Your task to perform on an android device: What's on my calendar tomorrow? Image 0: 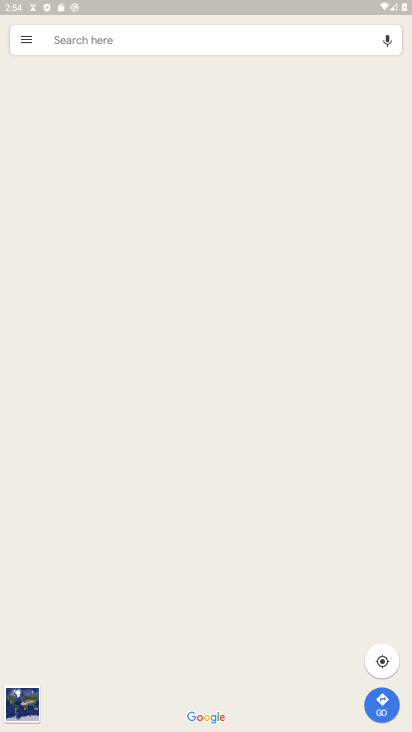
Step 0: drag from (243, 612) to (241, 250)
Your task to perform on an android device: What's on my calendar tomorrow? Image 1: 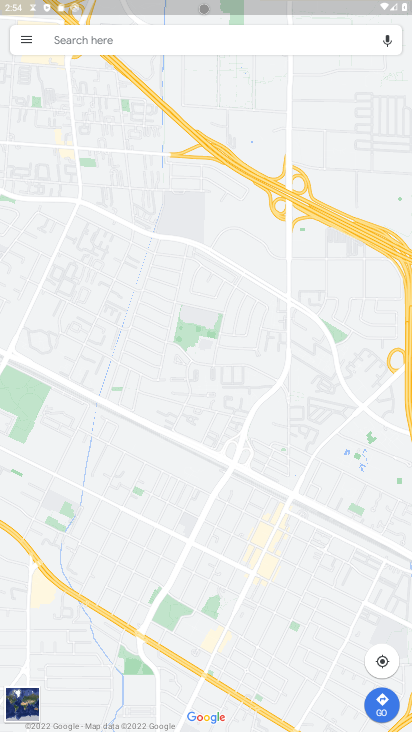
Step 1: press back button
Your task to perform on an android device: What's on my calendar tomorrow? Image 2: 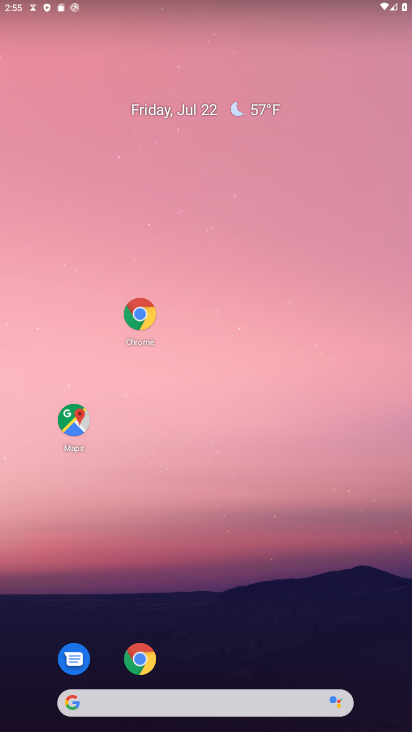
Step 2: drag from (215, 614) to (213, 119)
Your task to perform on an android device: What's on my calendar tomorrow? Image 3: 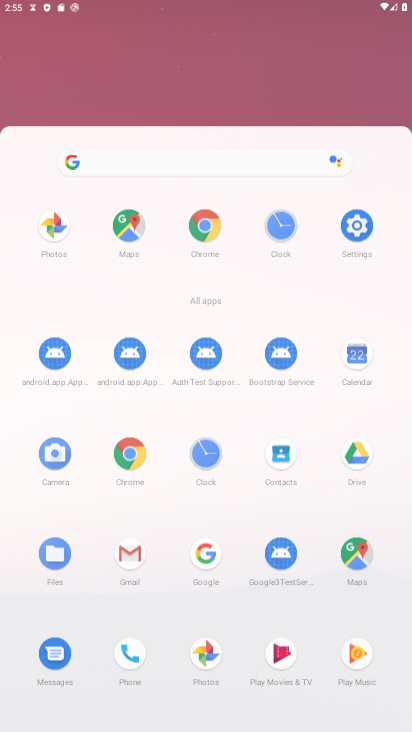
Step 3: drag from (246, 560) to (191, 33)
Your task to perform on an android device: What's on my calendar tomorrow? Image 4: 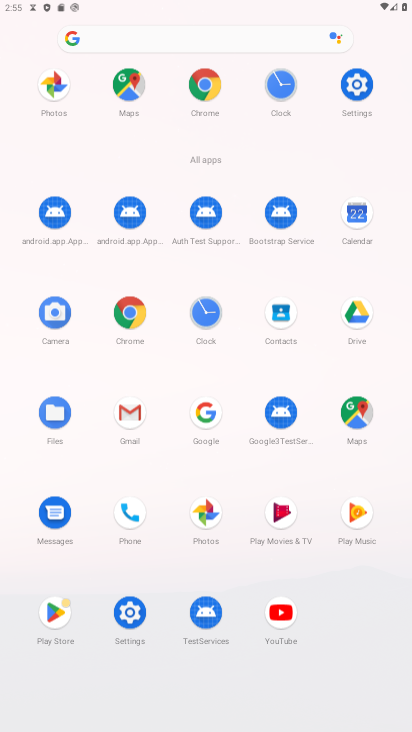
Step 4: drag from (250, 399) to (213, 38)
Your task to perform on an android device: What's on my calendar tomorrow? Image 5: 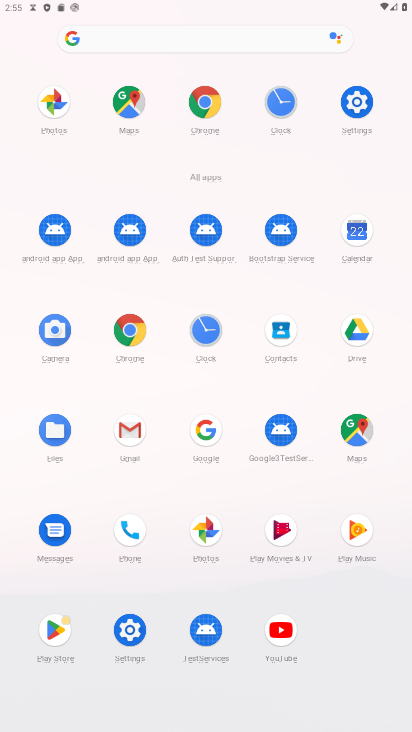
Step 5: click (354, 225)
Your task to perform on an android device: What's on my calendar tomorrow? Image 6: 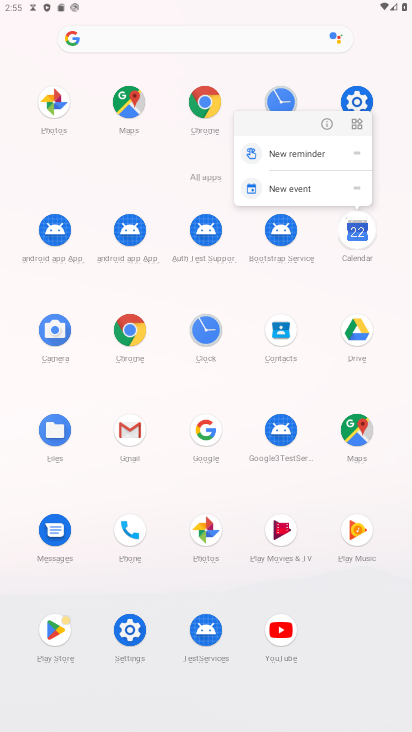
Step 6: click (366, 219)
Your task to perform on an android device: What's on my calendar tomorrow? Image 7: 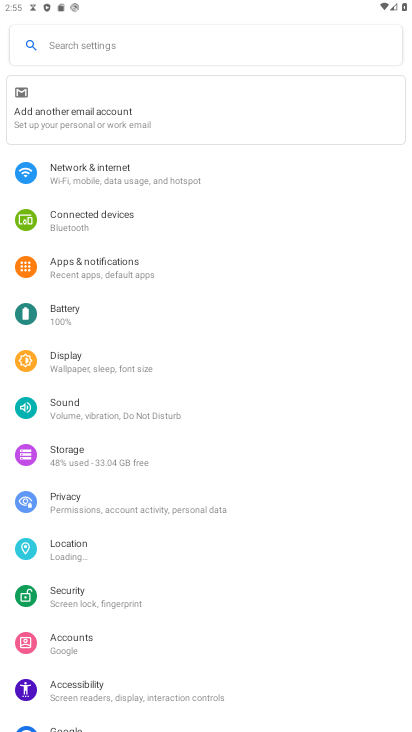
Step 7: drag from (69, 323) to (48, 105)
Your task to perform on an android device: What's on my calendar tomorrow? Image 8: 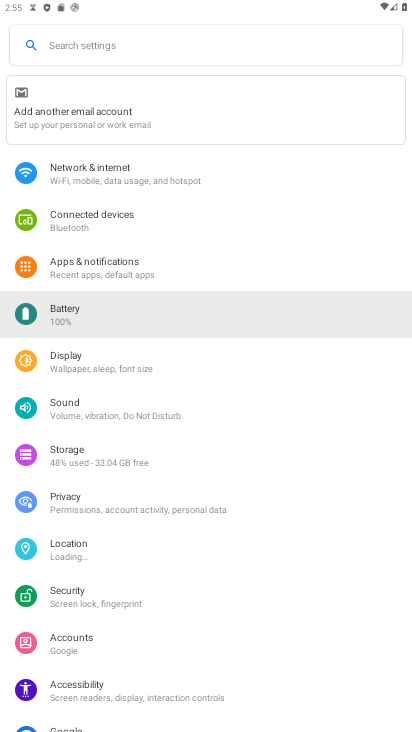
Step 8: drag from (92, 339) to (30, 120)
Your task to perform on an android device: What's on my calendar tomorrow? Image 9: 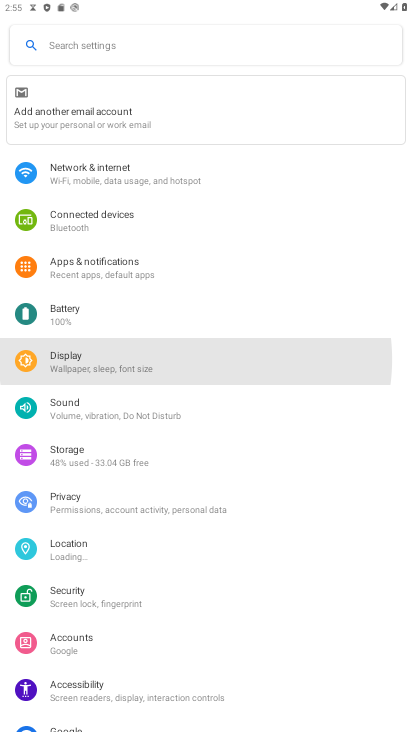
Step 9: drag from (71, 415) to (80, 243)
Your task to perform on an android device: What's on my calendar tomorrow? Image 10: 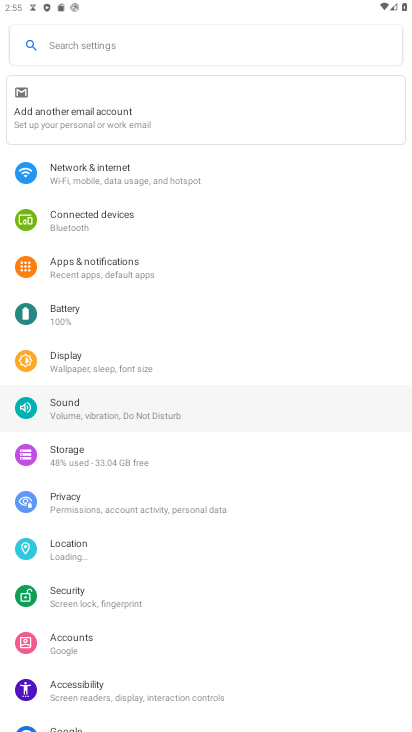
Step 10: drag from (141, 511) to (105, 142)
Your task to perform on an android device: What's on my calendar tomorrow? Image 11: 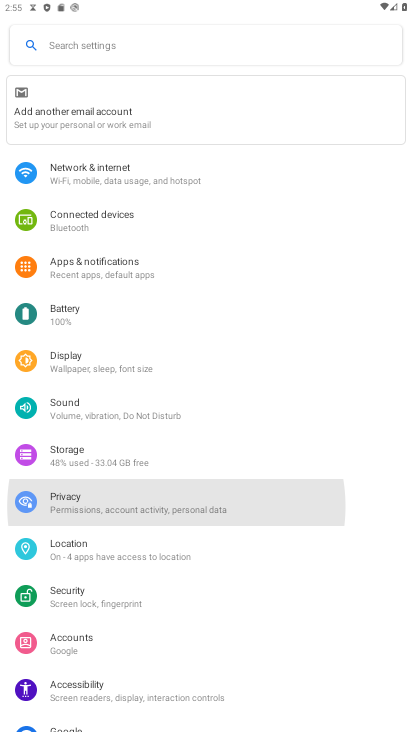
Step 11: drag from (164, 508) to (135, 243)
Your task to perform on an android device: What's on my calendar tomorrow? Image 12: 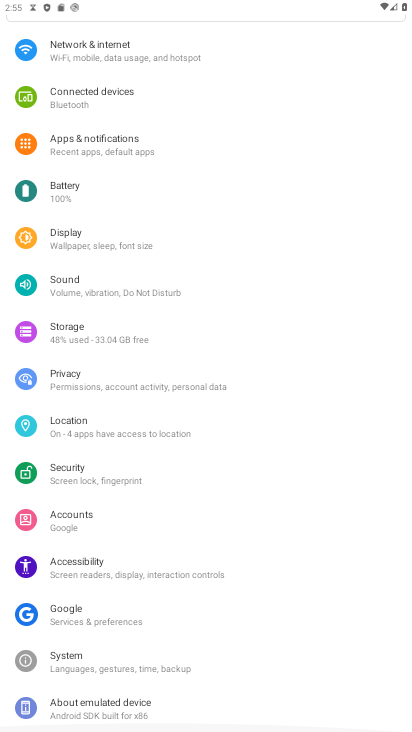
Step 12: drag from (108, 437) to (36, 78)
Your task to perform on an android device: What's on my calendar tomorrow? Image 13: 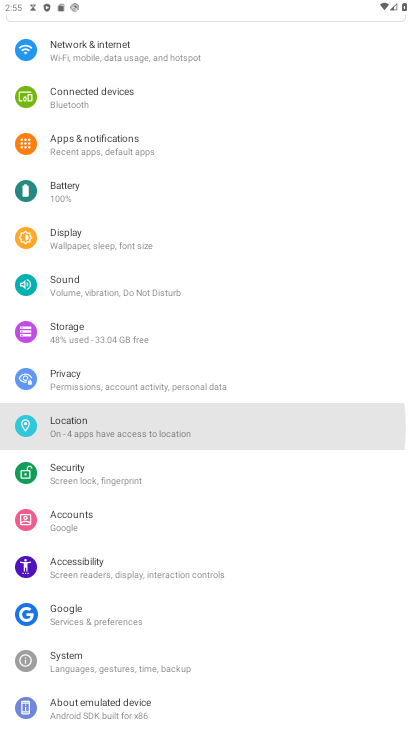
Step 13: drag from (90, 533) to (73, 246)
Your task to perform on an android device: What's on my calendar tomorrow? Image 14: 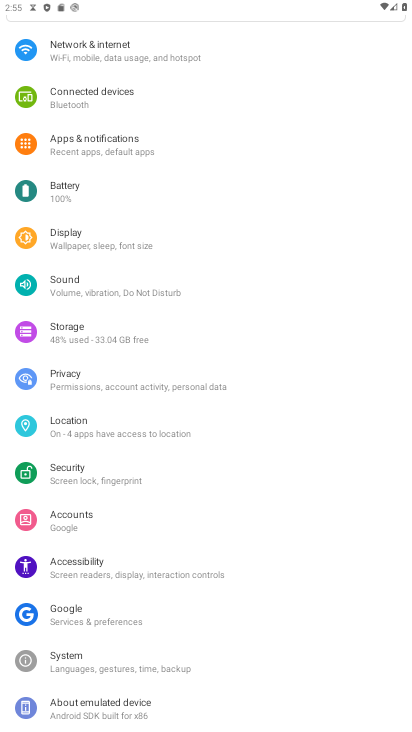
Step 14: drag from (96, 321) to (182, 477)
Your task to perform on an android device: What's on my calendar tomorrow? Image 15: 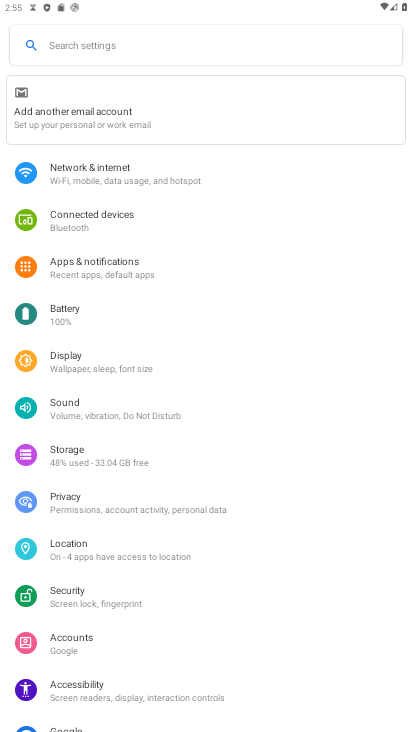
Step 15: press back button
Your task to perform on an android device: What's on my calendar tomorrow? Image 16: 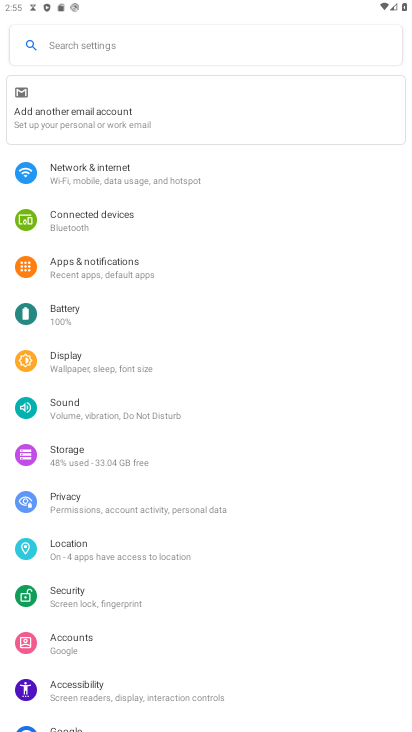
Step 16: press back button
Your task to perform on an android device: What's on my calendar tomorrow? Image 17: 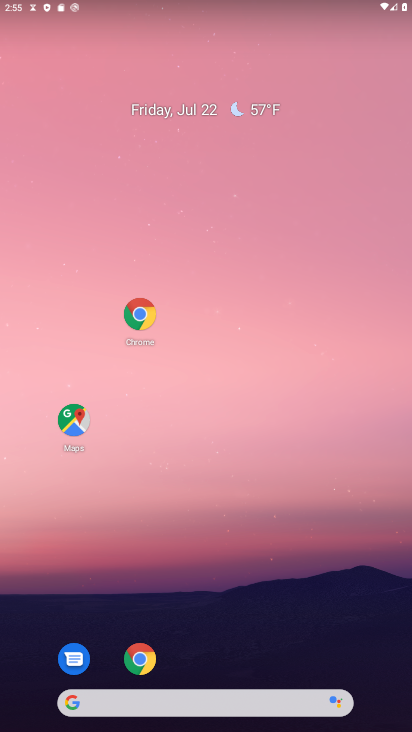
Step 17: drag from (208, 497) to (204, 56)
Your task to perform on an android device: What's on my calendar tomorrow? Image 18: 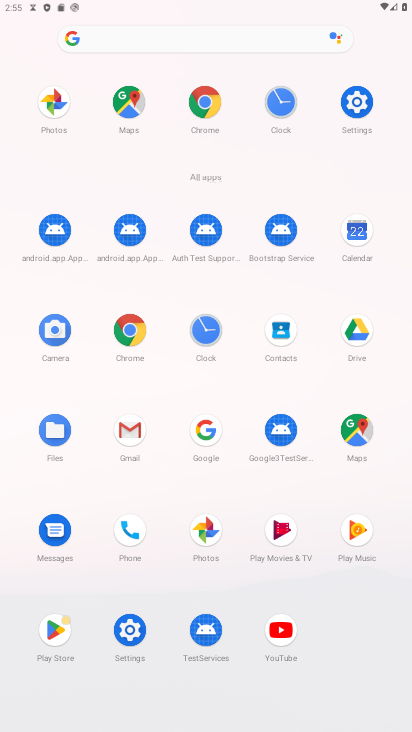
Step 18: click (352, 238)
Your task to perform on an android device: What's on my calendar tomorrow? Image 19: 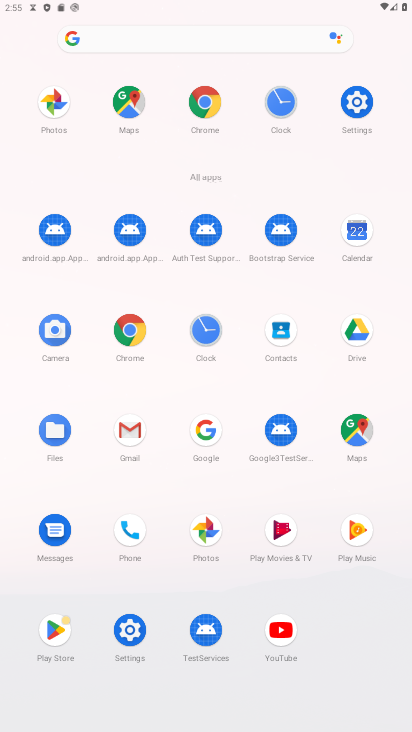
Step 19: click (356, 230)
Your task to perform on an android device: What's on my calendar tomorrow? Image 20: 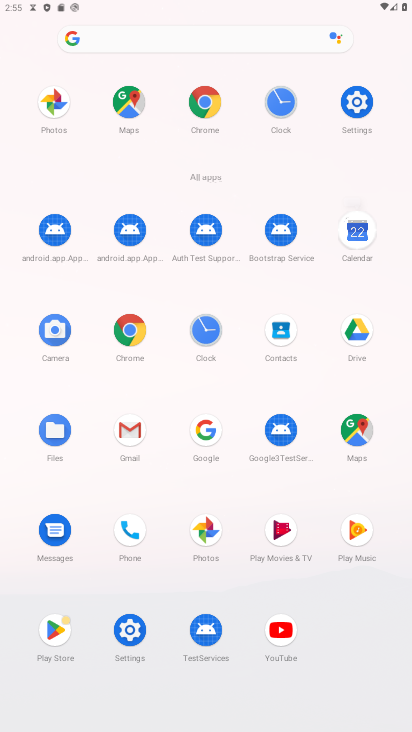
Step 20: click (357, 230)
Your task to perform on an android device: What's on my calendar tomorrow? Image 21: 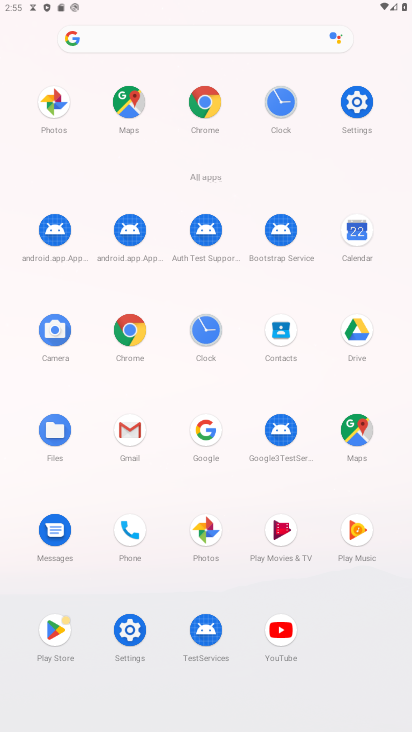
Step 21: click (351, 227)
Your task to perform on an android device: What's on my calendar tomorrow? Image 22: 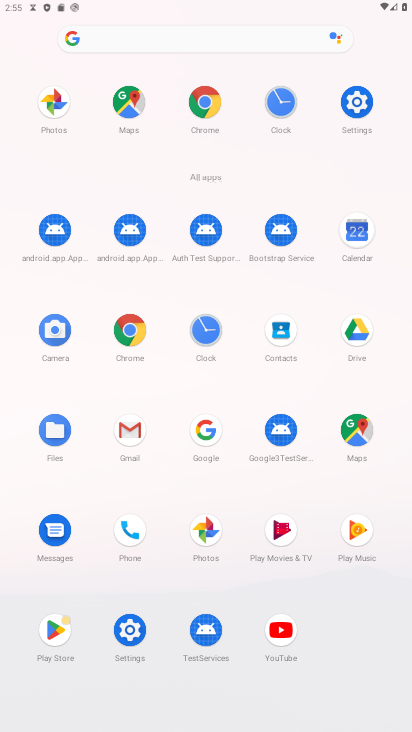
Step 22: click (359, 222)
Your task to perform on an android device: What's on my calendar tomorrow? Image 23: 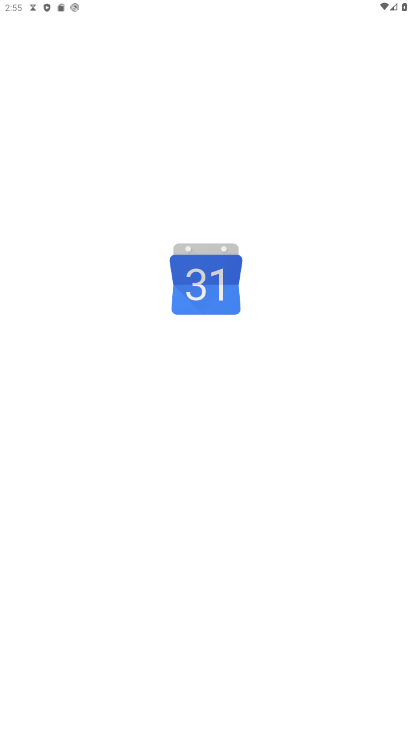
Step 23: click (359, 222)
Your task to perform on an android device: What's on my calendar tomorrow? Image 24: 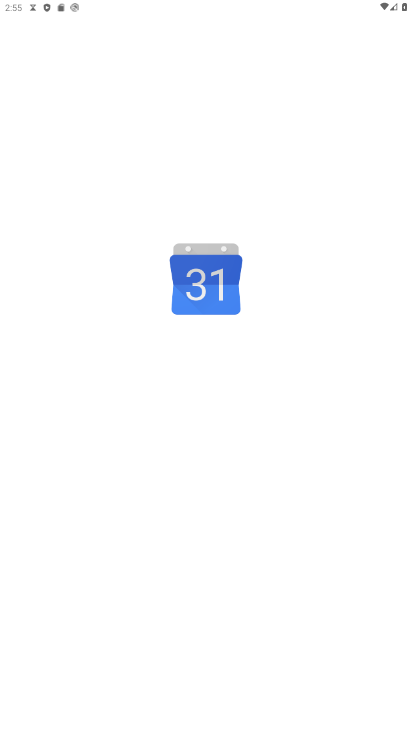
Step 24: click (359, 222)
Your task to perform on an android device: What's on my calendar tomorrow? Image 25: 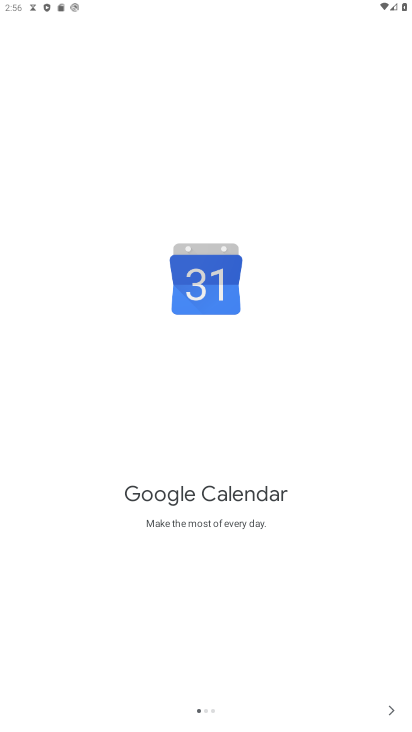
Step 25: click (391, 715)
Your task to perform on an android device: What's on my calendar tomorrow? Image 26: 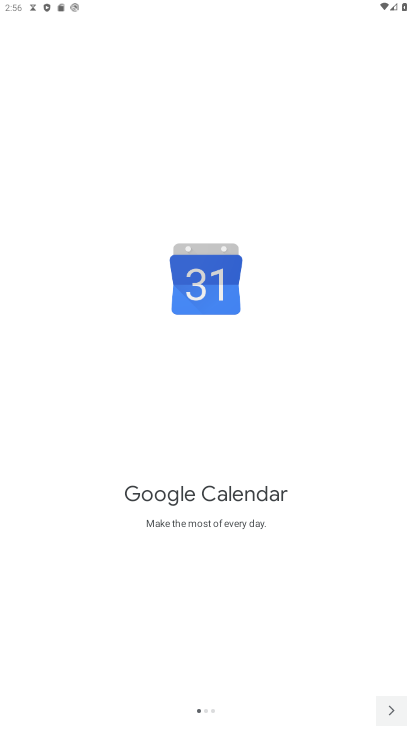
Step 26: click (391, 715)
Your task to perform on an android device: What's on my calendar tomorrow? Image 27: 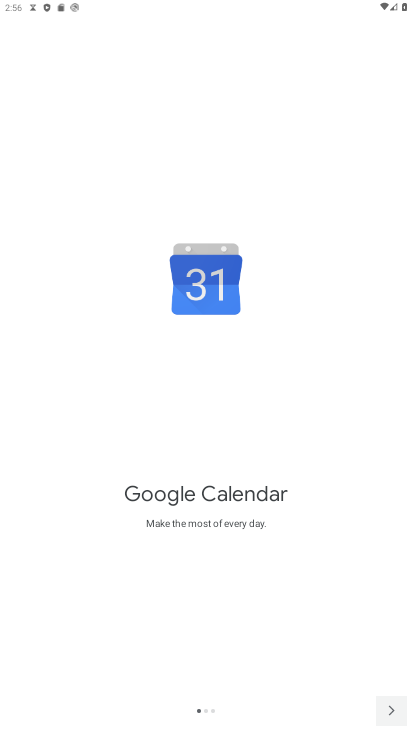
Step 27: click (391, 715)
Your task to perform on an android device: What's on my calendar tomorrow? Image 28: 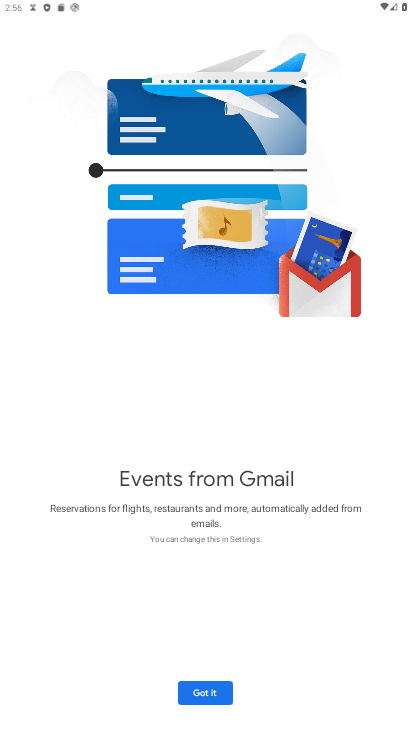
Step 28: click (396, 712)
Your task to perform on an android device: What's on my calendar tomorrow? Image 29: 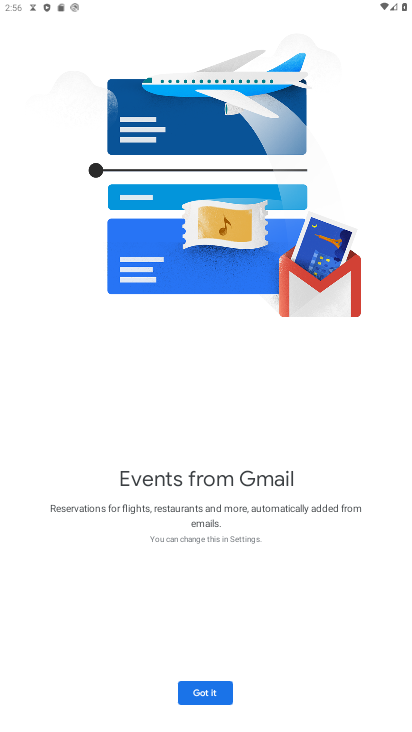
Step 29: click (396, 712)
Your task to perform on an android device: What's on my calendar tomorrow? Image 30: 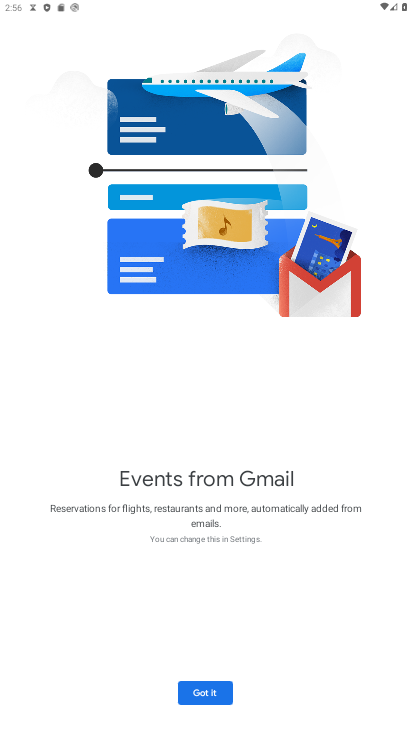
Step 30: click (207, 704)
Your task to perform on an android device: What's on my calendar tomorrow? Image 31: 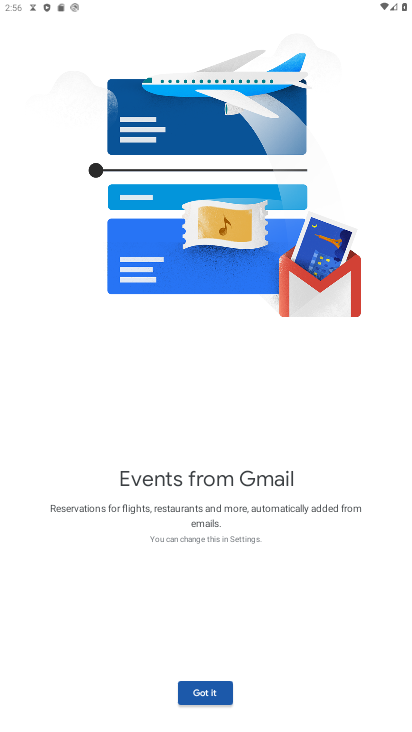
Step 31: click (219, 681)
Your task to perform on an android device: What's on my calendar tomorrow? Image 32: 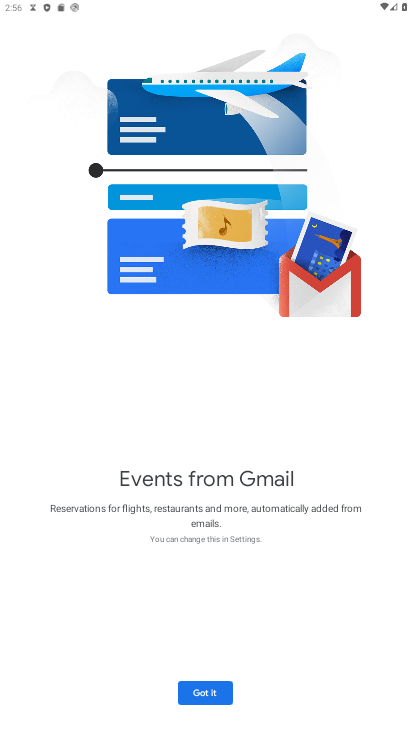
Step 32: click (220, 682)
Your task to perform on an android device: What's on my calendar tomorrow? Image 33: 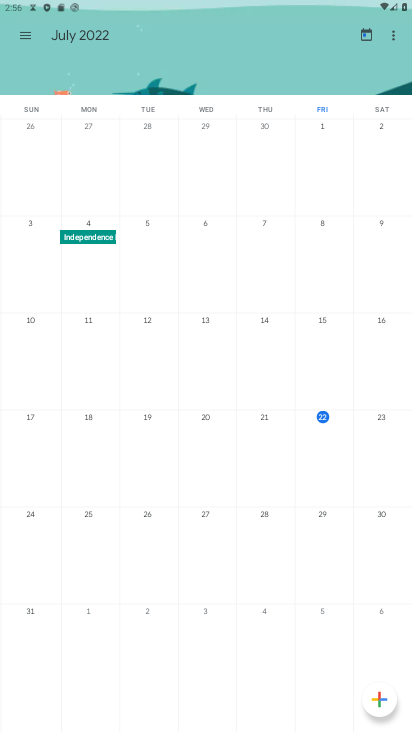
Step 33: drag from (282, 376) to (98, 643)
Your task to perform on an android device: What's on my calendar tomorrow? Image 34: 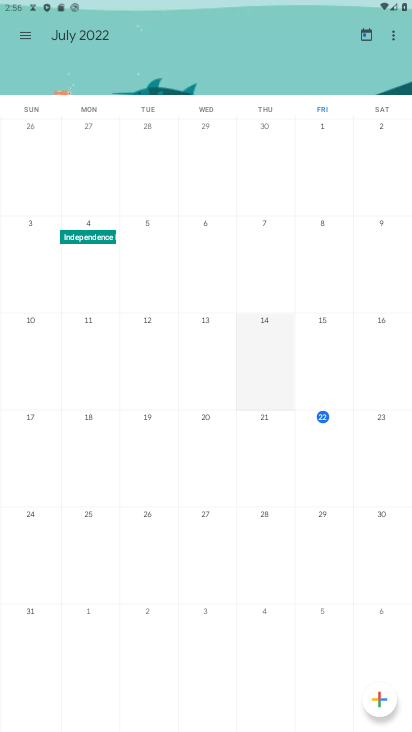
Step 34: drag from (125, 466) to (51, 545)
Your task to perform on an android device: What's on my calendar tomorrow? Image 35: 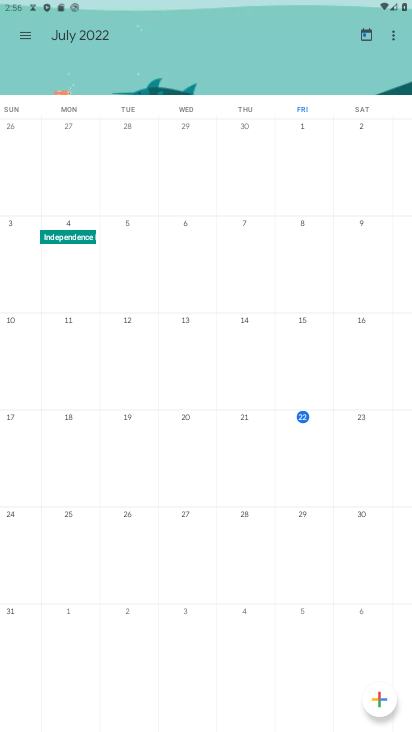
Step 35: drag from (92, 520) to (33, 554)
Your task to perform on an android device: What's on my calendar tomorrow? Image 36: 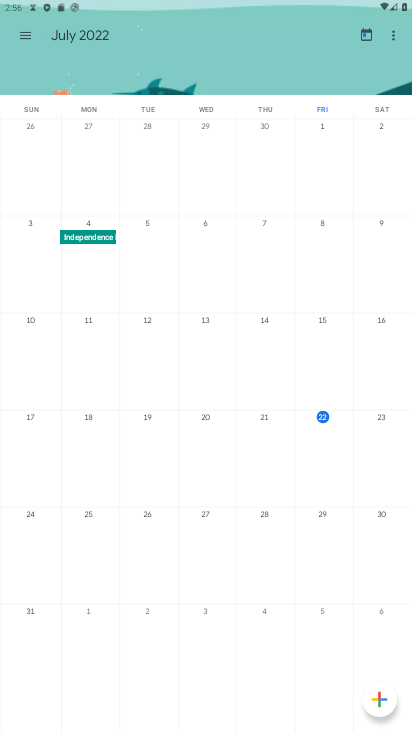
Step 36: drag from (260, 380) to (9, 335)
Your task to perform on an android device: What's on my calendar tomorrow? Image 37: 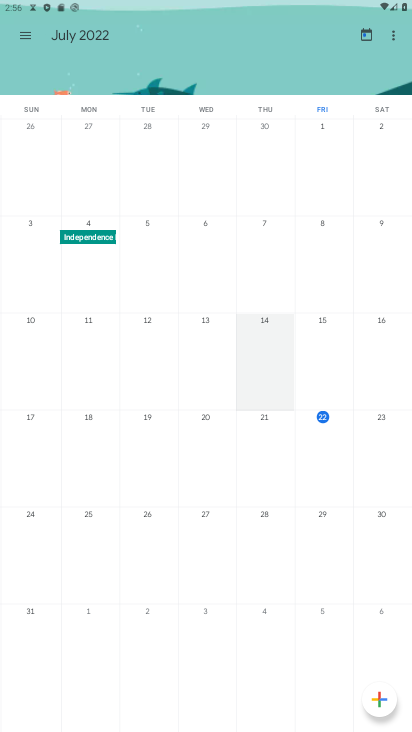
Step 37: drag from (267, 391) to (61, 494)
Your task to perform on an android device: What's on my calendar tomorrow? Image 38: 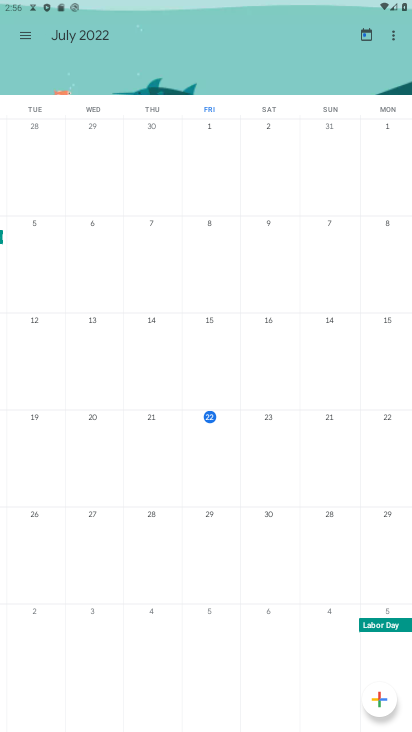
Step 38: click (21, 445)
Your task to perform on an android device: What's on my calendar tomorrow? Image 39: 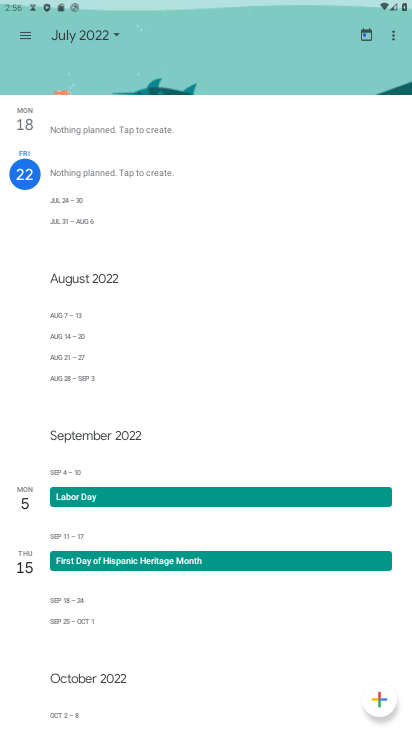
Step 39: task complete